Your task to perform on an android device: Go to Yahoo.com Image 0: 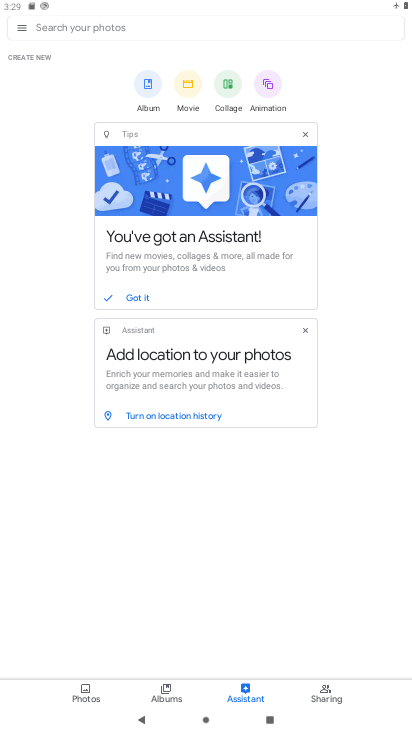
Step 0: press home button
Your task to perform on an android device: Go to Yahoo.com Image 1: 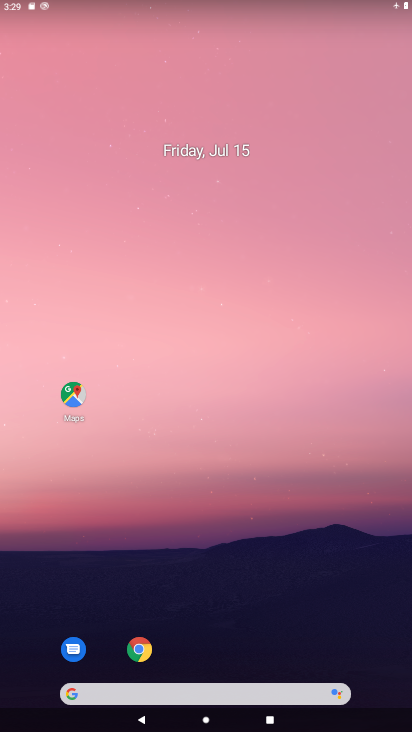
Step 1: click (142, 650)
Your task to perform on an android device: Go to Yahoo.com Image 2: 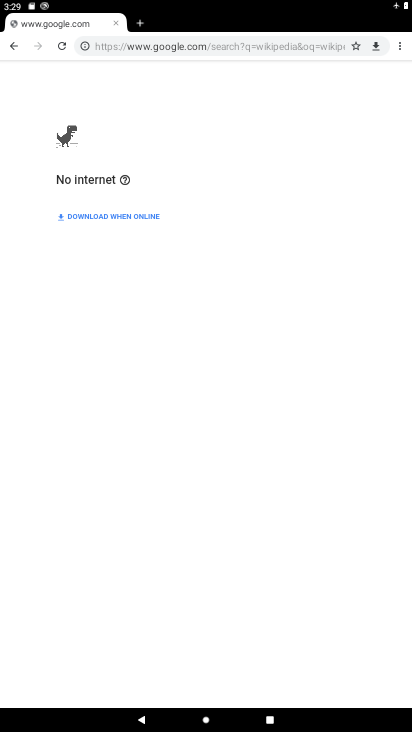
Step 2: click (220, 47)
Your task to perform on an android device: Go to Yahoo.com Image 3: 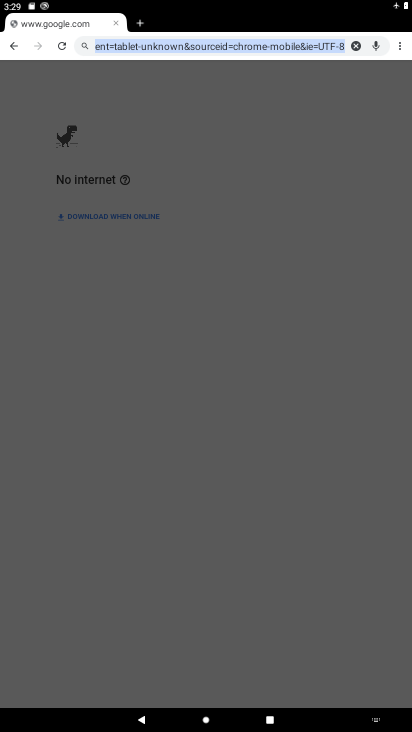
Step 3: click (353, 44)
Your task to perform on an android device: Go to Yahoo.com Image 4: 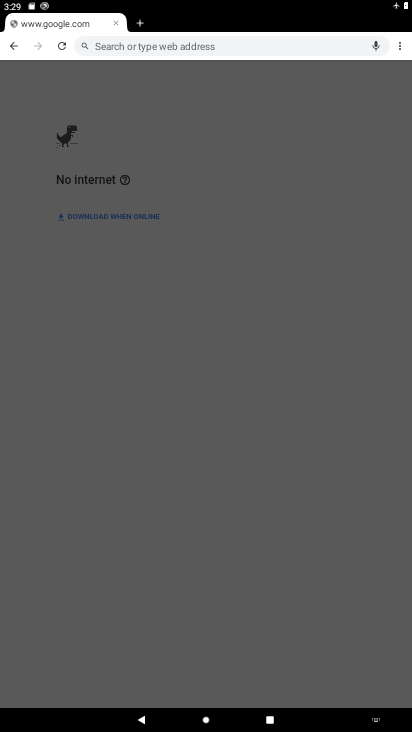
Step 4: type "yahoo.com"
Your task to perform on an android device: Go to Yahoo.com Image 5: 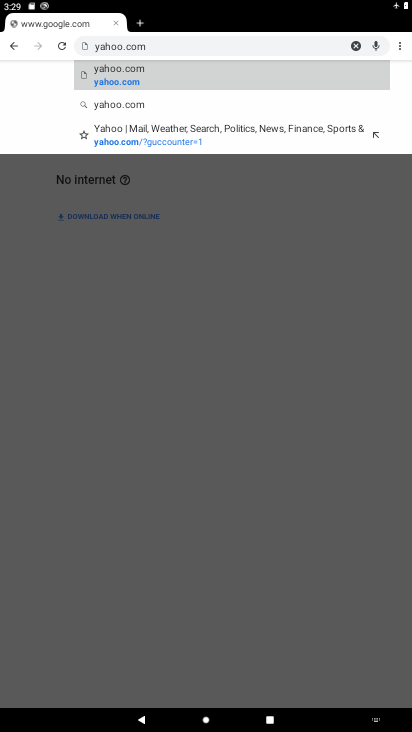
Step 5: click (113, 65)
Your task to perform on an android device: Go to Yahoo.com Image 6: 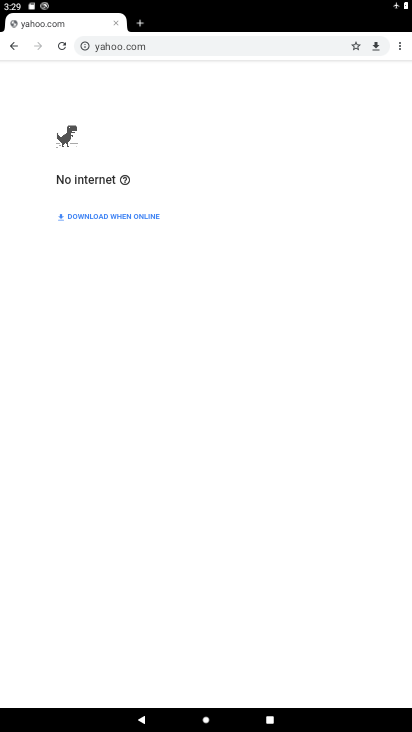
Step 6: task complete